Your task to perform on an android device: install app "Adobe Express: Graphic Design" Image 0: 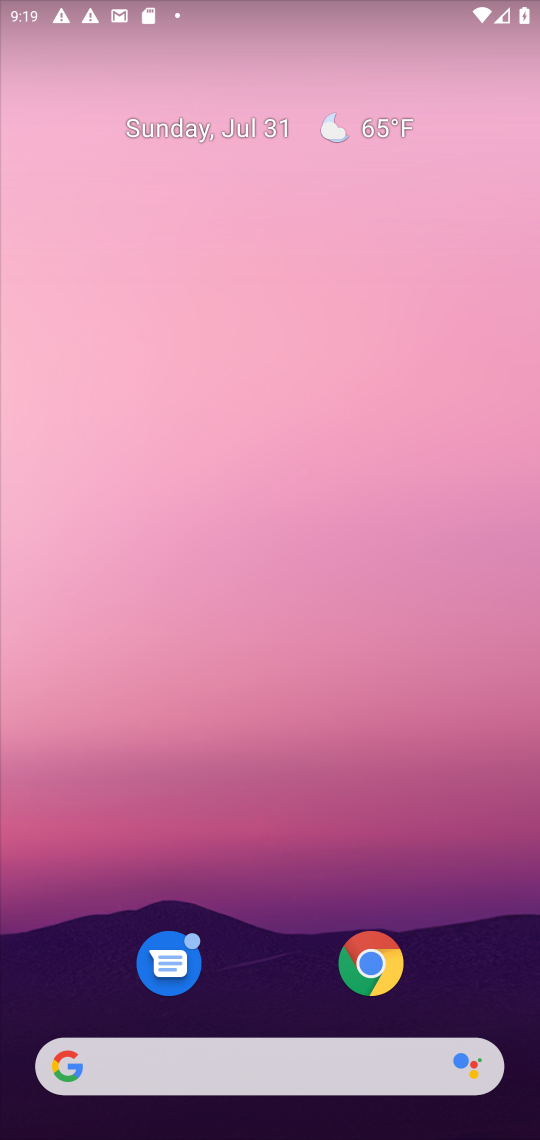
Step 0: drag from (270, 968) to (160, 0)
Your task to perform on an android device: install app "Adobe Express: Graphic Design" Image 1: 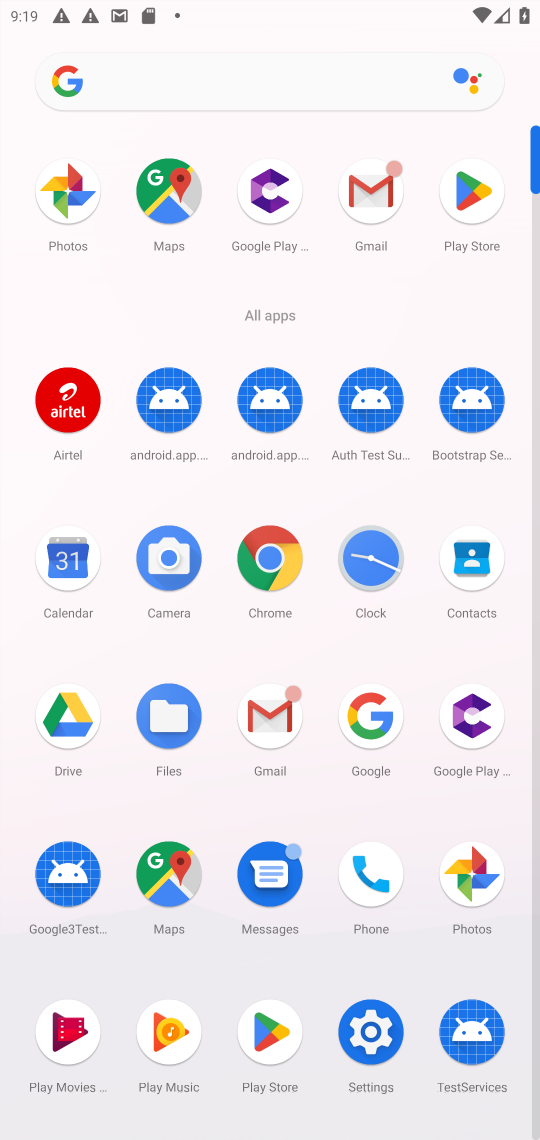
Step 1: click (465, 200)
Your task to perform on an android device: install app "Adobe Express: Graphic Design" Image 2: 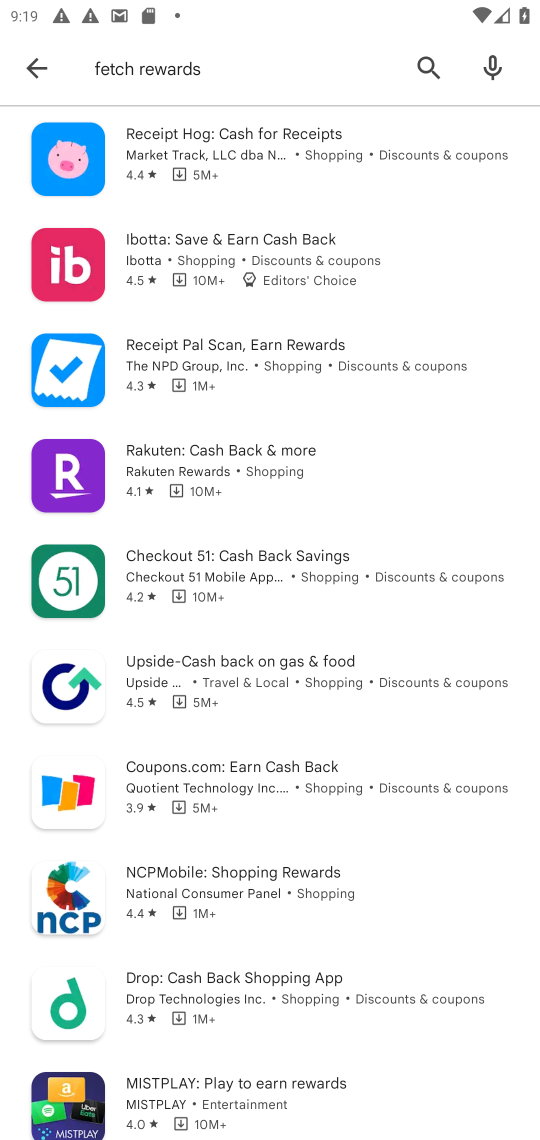
Step 2: click (430, 71)
Your task to perform on an android device: install app "Adobe Express: Graphic Design" Image 3: 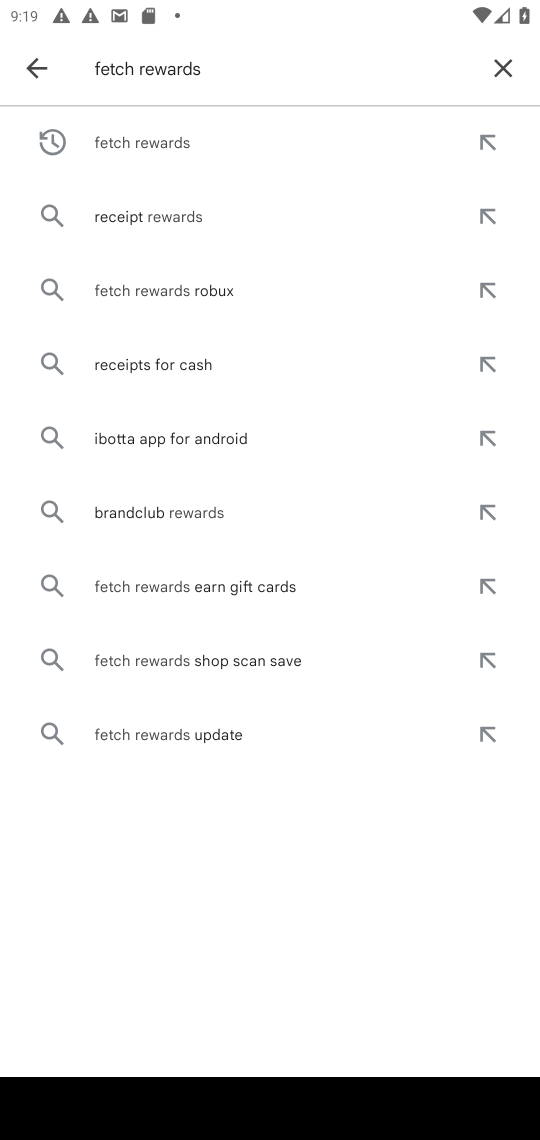
Step 3: click (497, 60)
Your task to perform on an android device: install app "Adobe Express: Graphic Design" Image 4: 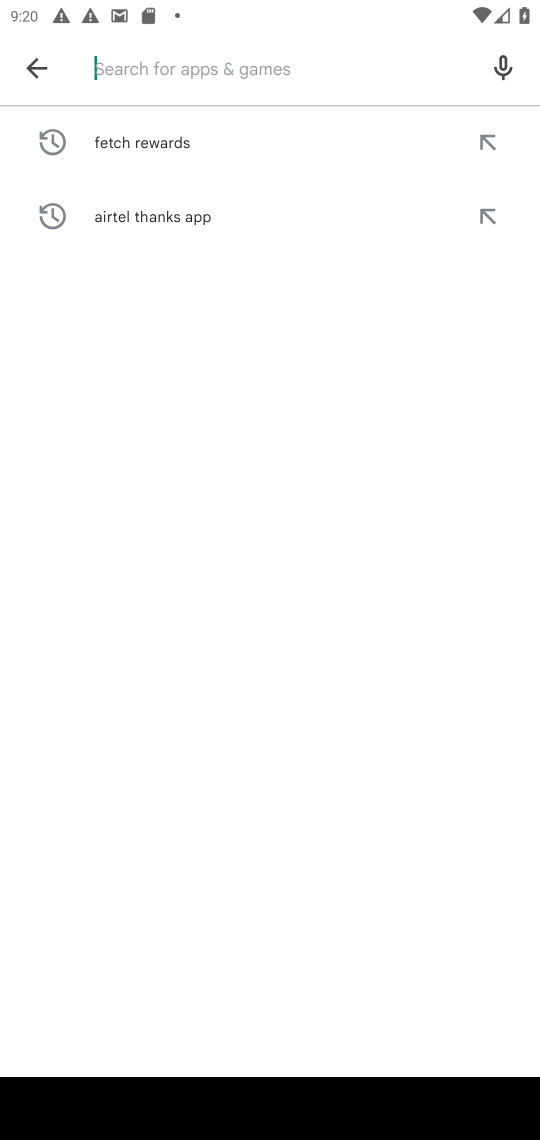
Step 4: type "adobe expresss: graphic design"
Your task to perform on an android device: install app "Adobe Express: Graphic Design" Image 5: 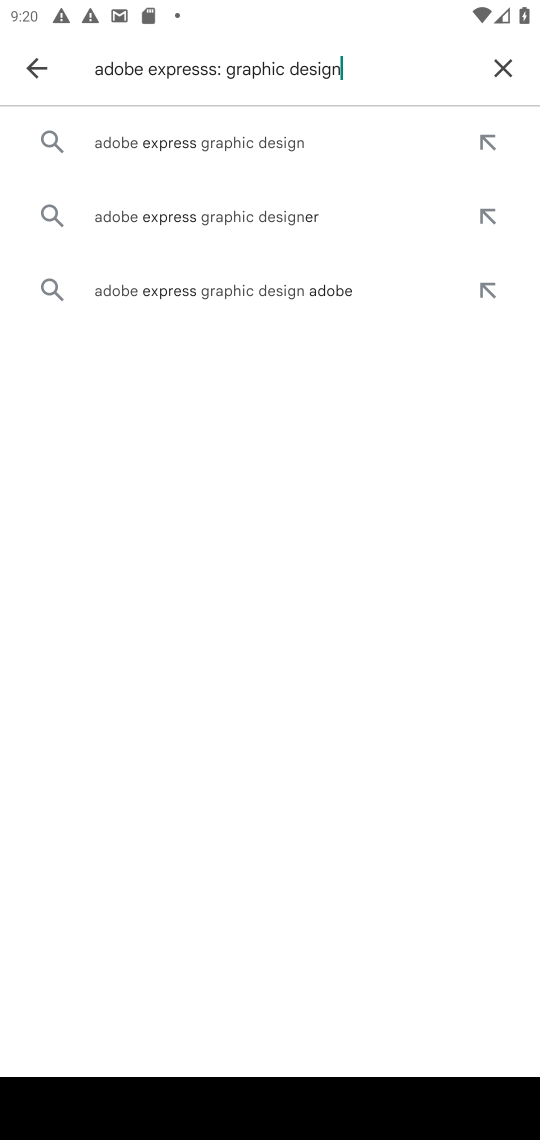
Step 5: click (190, 141)
Your task to perform on an android device: install app "Adobe Express: Graphic Design" Image 6: 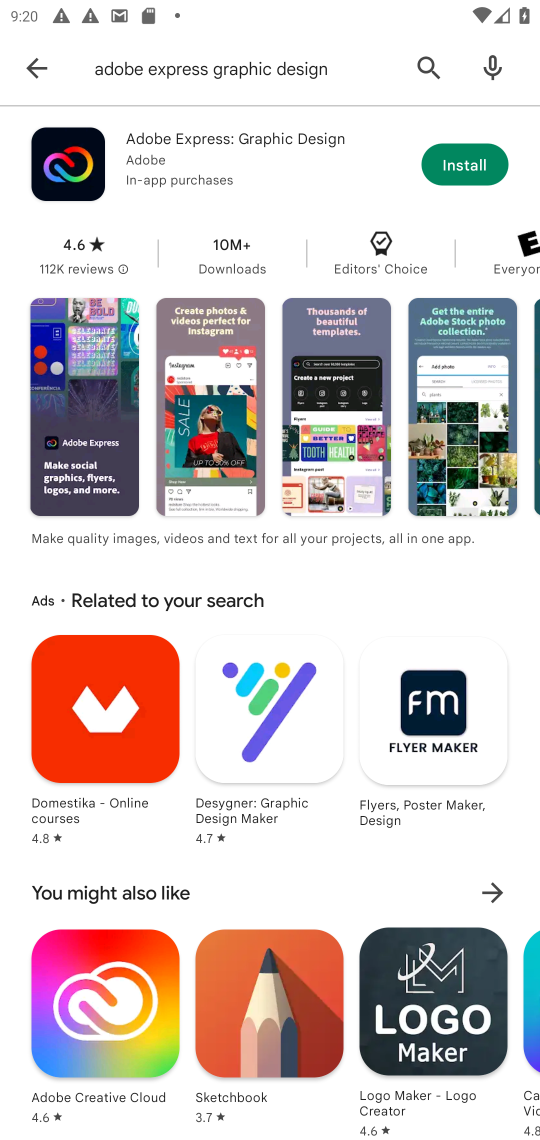
Step 6: click (237, 134)
Your task to perform on an android device: install app "Adobe Express: Graphic Design" Image 7: 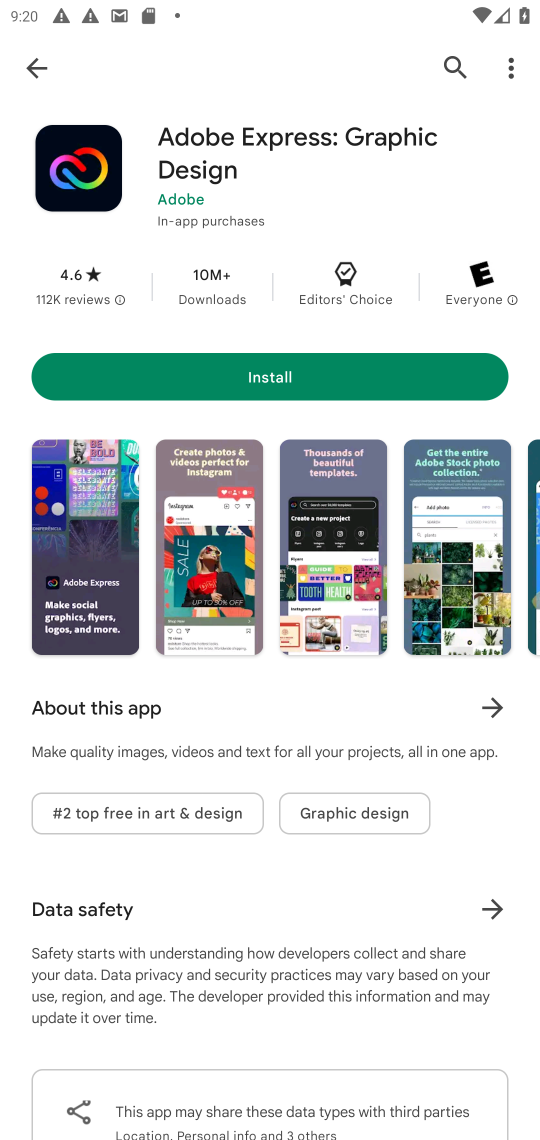
Step 7: click (251, 374)
Your task to perform on an android device: install app "Adobe Express: Graphic Design" Image 8: 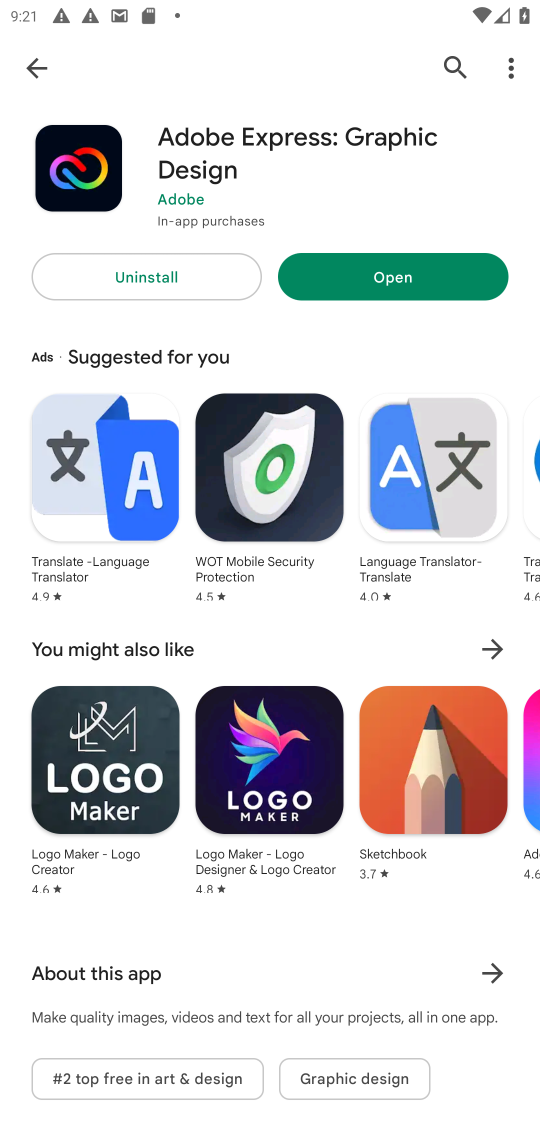
Step 8: task complete